Your task to perform on an android device: Check the news Image 0: 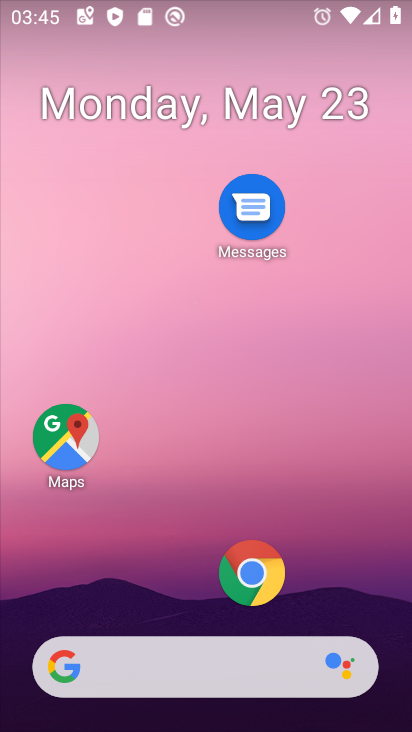
Step 0: drag from (320, 676) to (280, 11)
Your task to perform on an android device: Check the news Image 1: 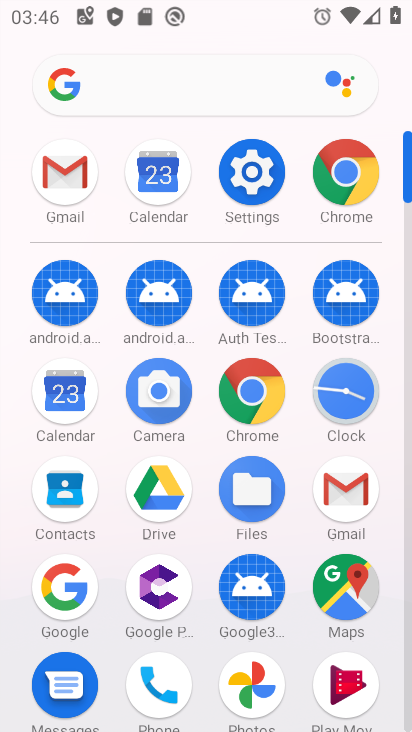
Step 1: click (262, 394)
Your task to perform on an android device: Check the news Image 2: 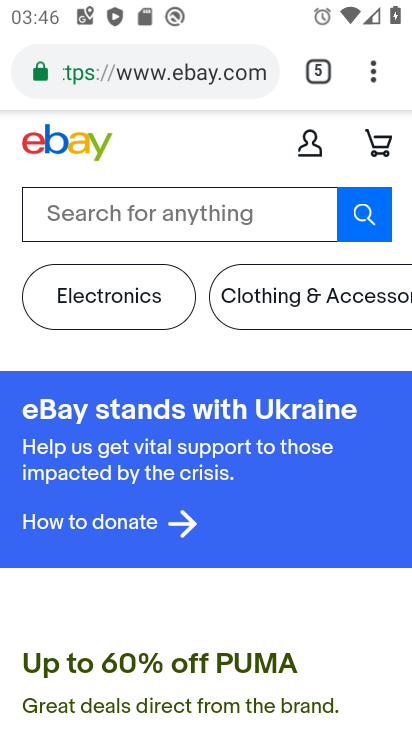
Step 2: click (122, 81)
Your task to perform on an android device: Check the news Image 3: 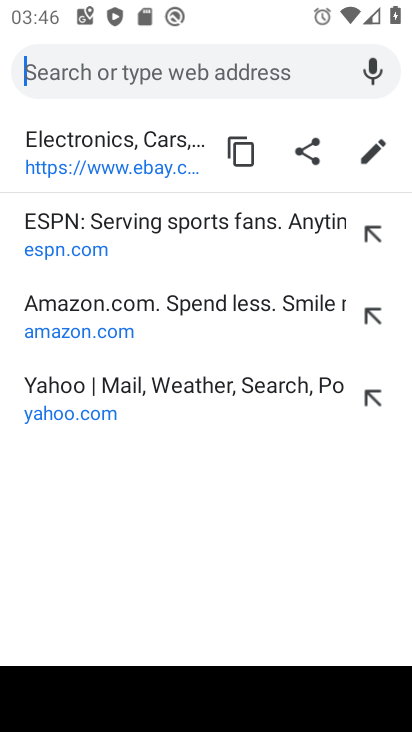
Step 3: type "check the news"
Your task to perform on an android device: Check the news Image 4: 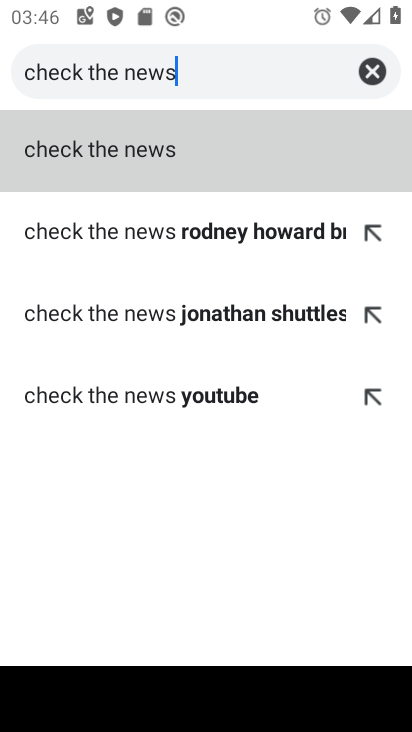
Step 4: click (206, 147)
Your task to perform on an android device: Check the news Image 5: 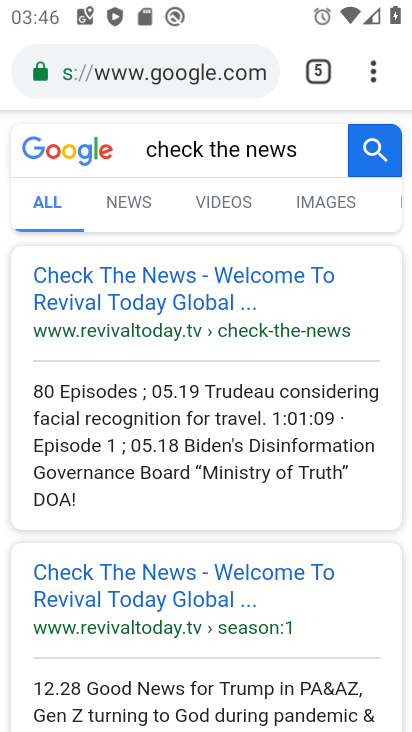
Step 5: task complete